Your task to perform on an android device: empty trash in google photos Image 0: 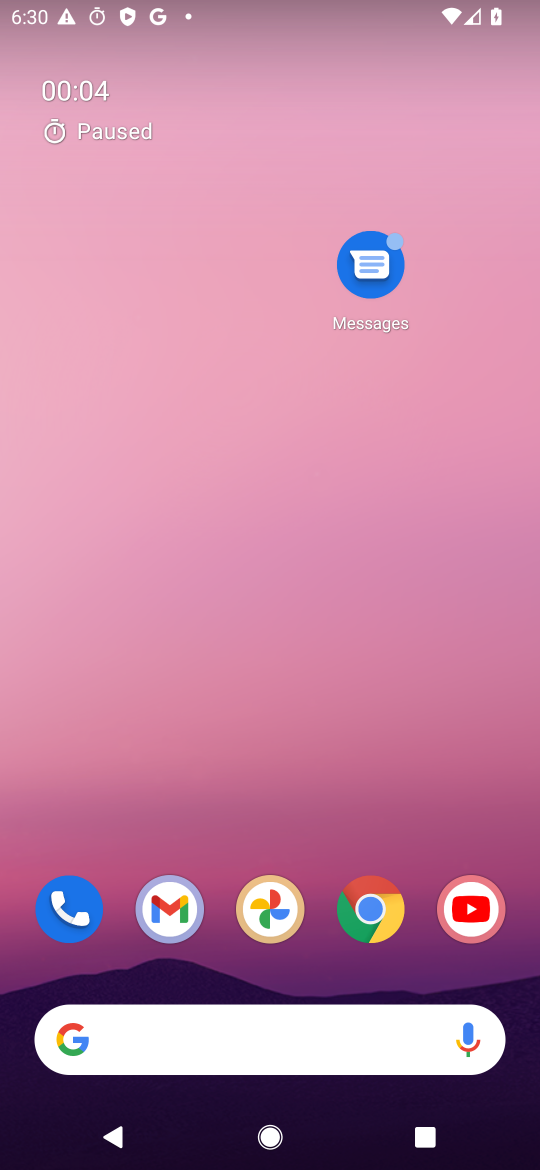
Step 0: drag from (265, 877) to (391, 420)
Your task to perform on an android device: empty trash in google photos Image 1: 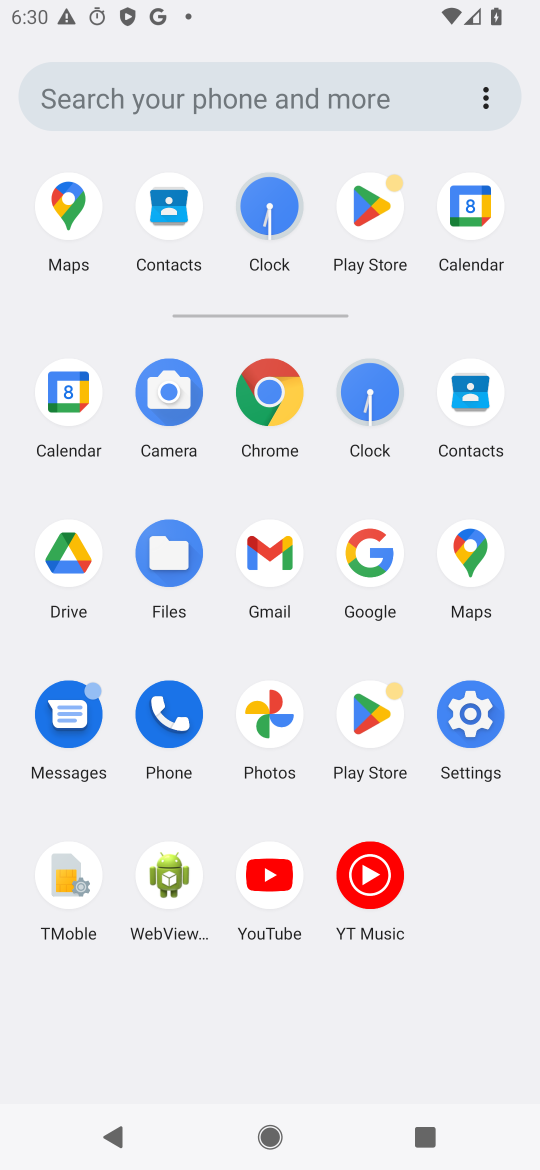
Step 1: click (274, 704)
Your task to perform on an android device: empty trash in google photos Image 2: 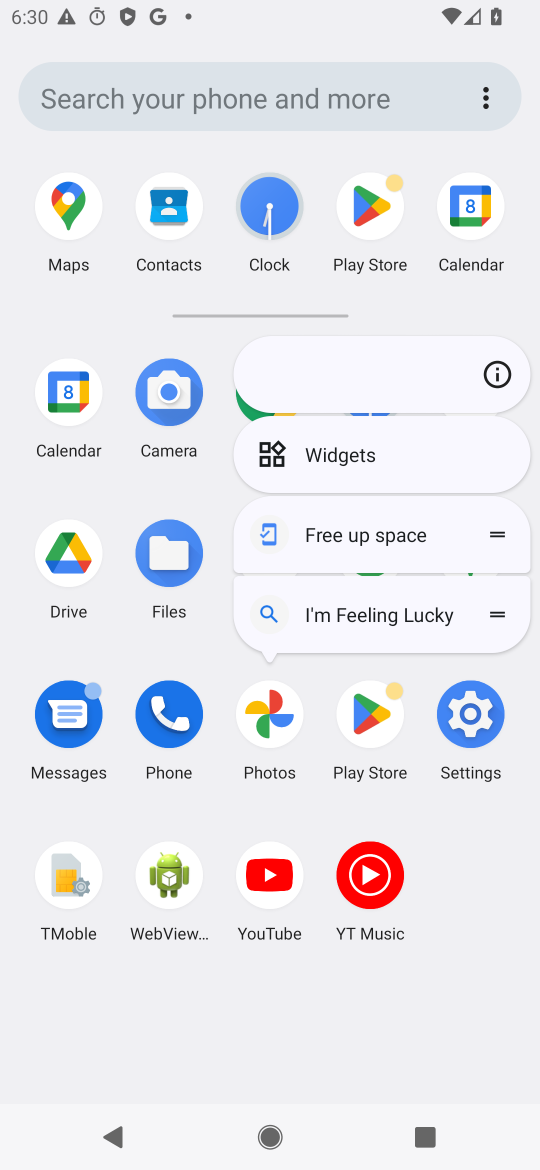
Step 2: click (273, 713)
Your task to perform on an android device: empty trash in google photos Image 3: 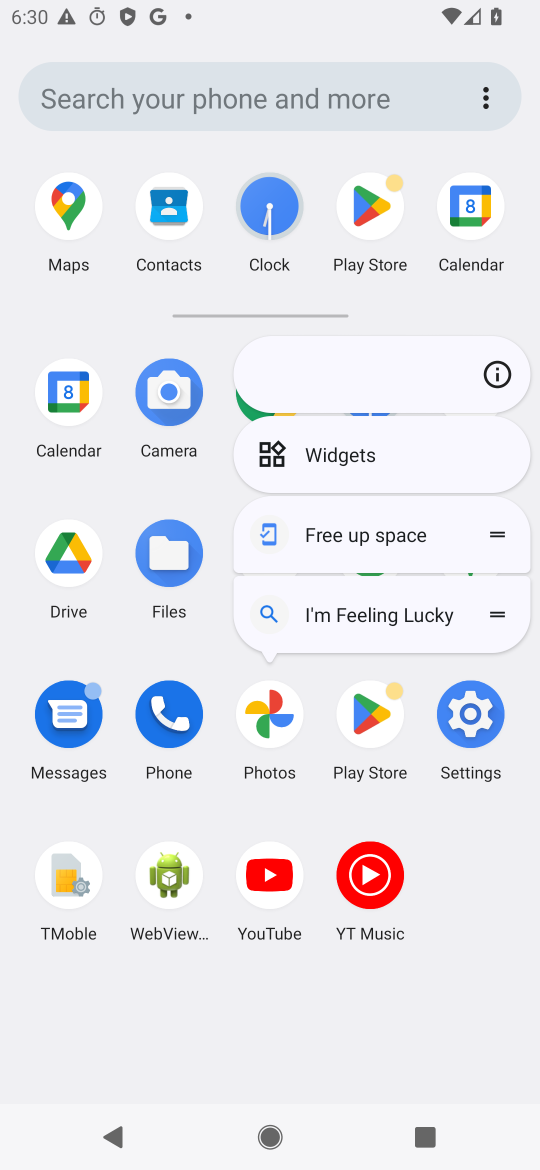
Step 3: click (267, 729)
Your task to perform on an android device: empty trash in google photos Image 4: 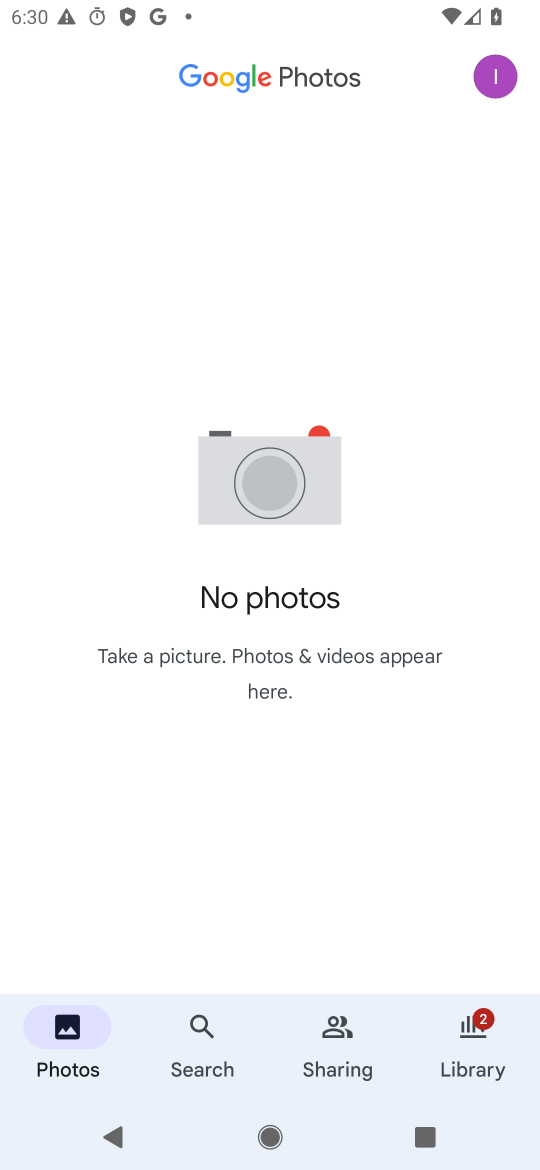
Step 4: click (479, 1036)
Your task to perform on an android device: empty trash in google photos Image 5: 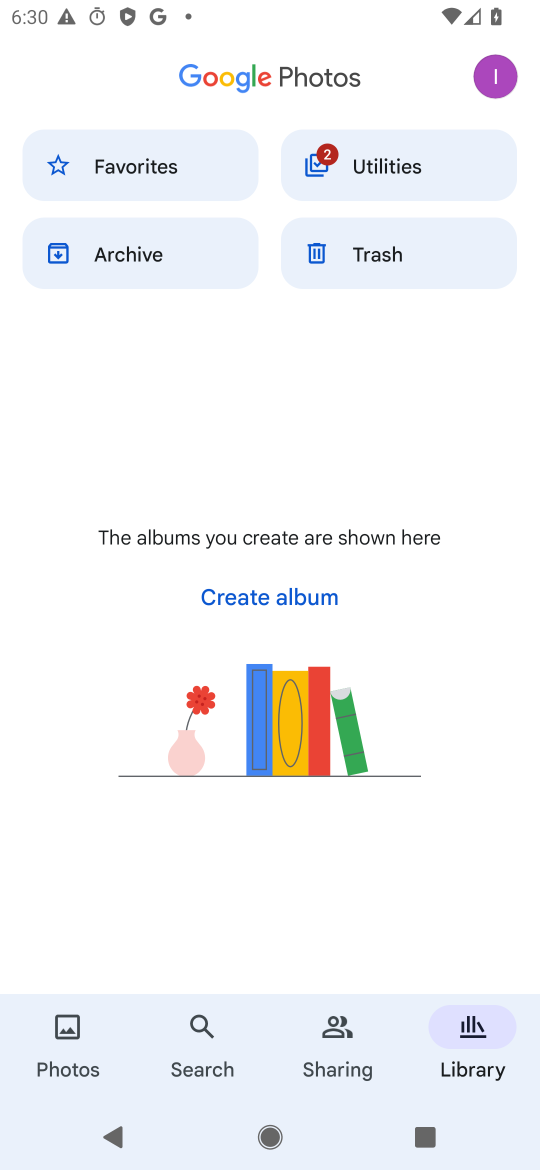
Step 5: click (352, 262)
Your task to perform on an android device: empty trash in google photos Image 6: 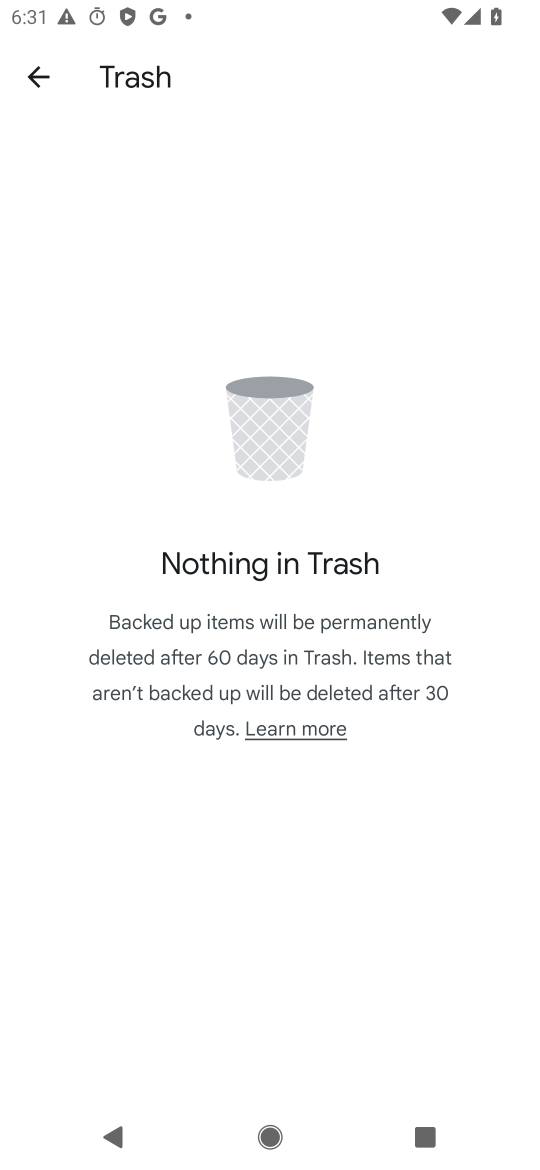
Step 6: task complete